Your task to perform on an android device: Go to display settings Image 0: 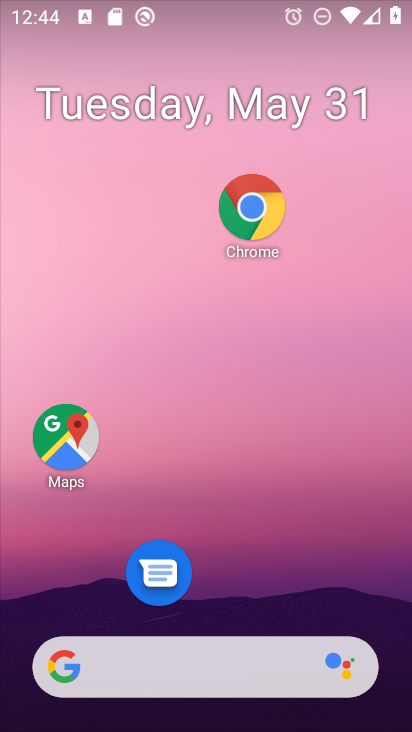
Step 0: drag from (271, 652) to (222, 182)
Your task to perform on an android device: Go to display settings Image 1: 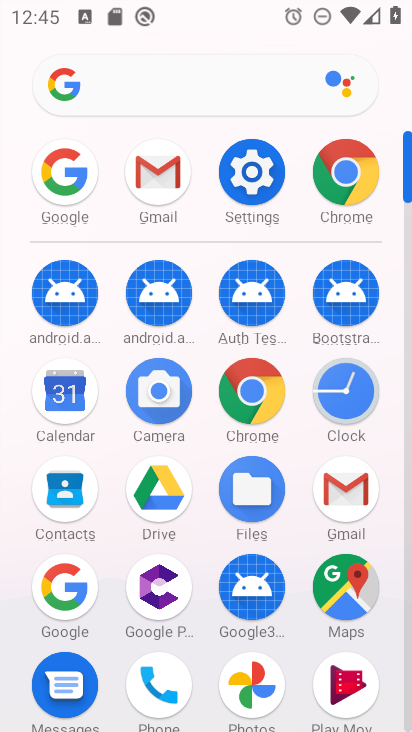
Step 1: click (260, 191)
Your task to perform on an android device: Go to display settings Image 2: 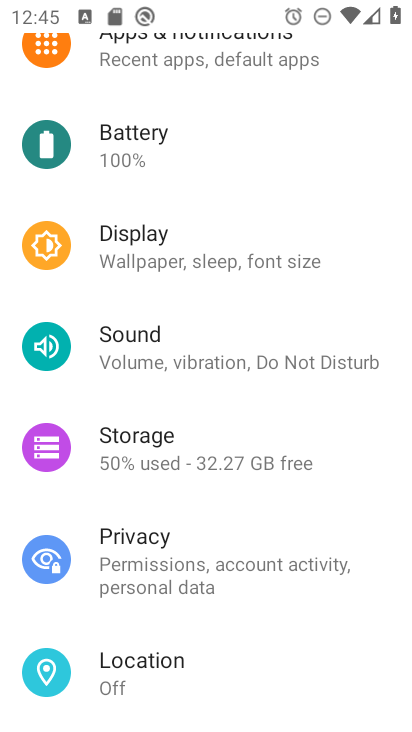
Step 2: click (192, 262)
Your task to perform on an android device: Go to display settings Image 3: 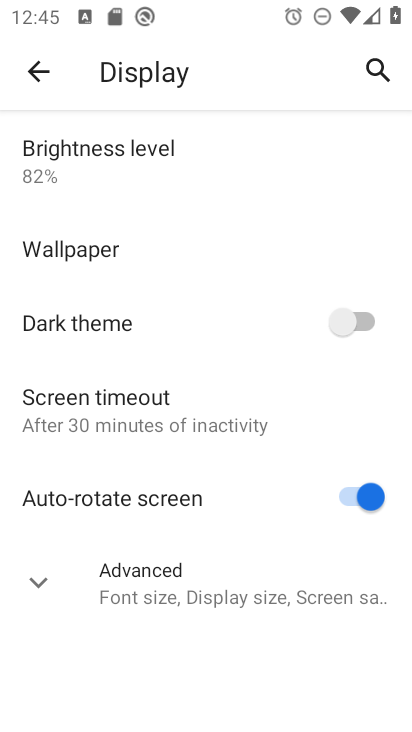
Step 3: task complete